Your task to perform on an android device: set the stopwatch Image 0: 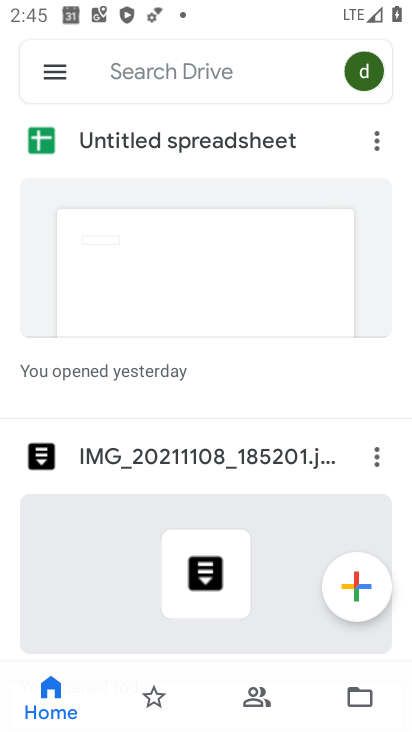
Step 0: press home button
Your task to perform on an android device: set the stopwatch Image 1: 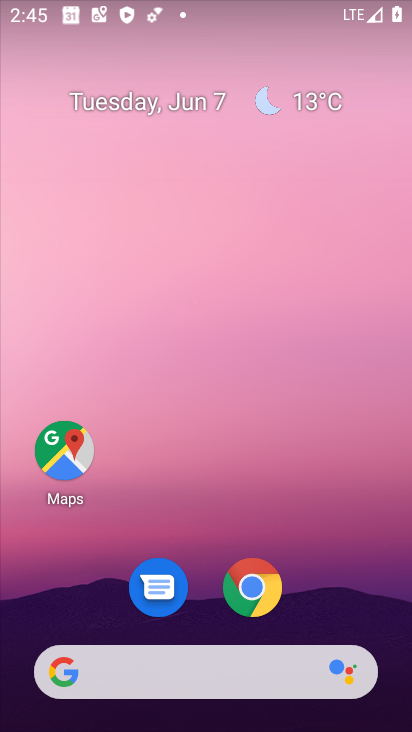
Step 1: drag from (254, 640) to (275, 20)
Your task to perform on an android device: set the stopwatch Image 2: 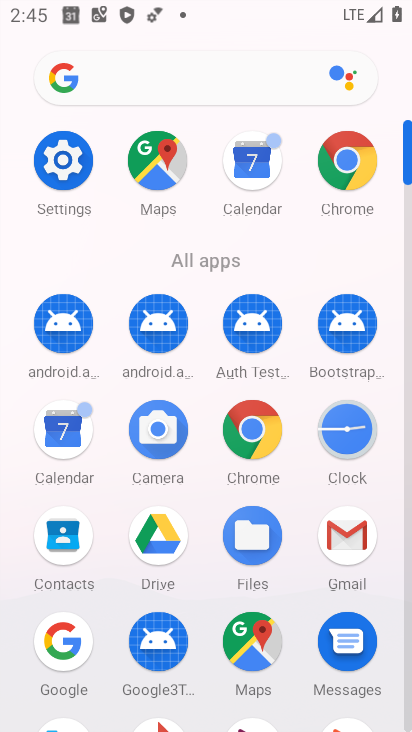
Step 2: click (350, 439)
Your task to perform on an android device: set the stopwatch Image 3: 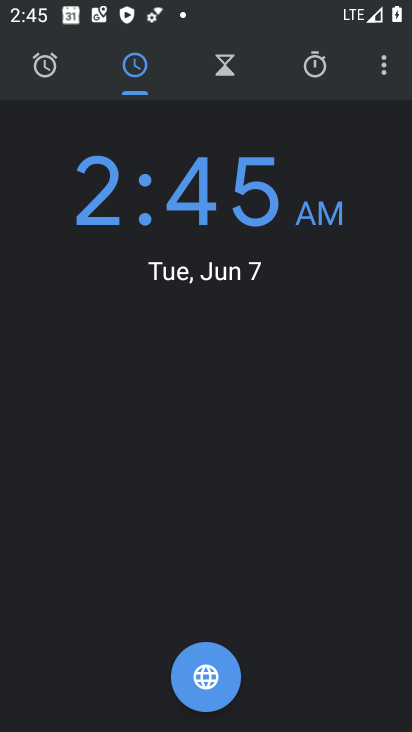
Step 3: click (316, 82)
Your task to perform on an android device: set the stopwatch Image 4: 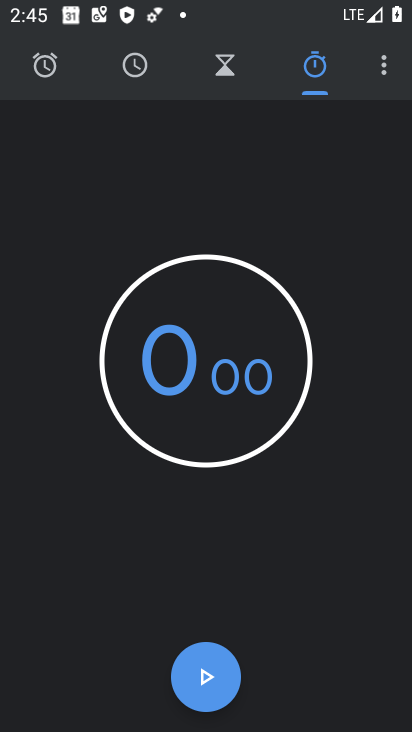
Step 4: click (211, 671)
Your task to perform on an android device: set the stopwatch Image 5: 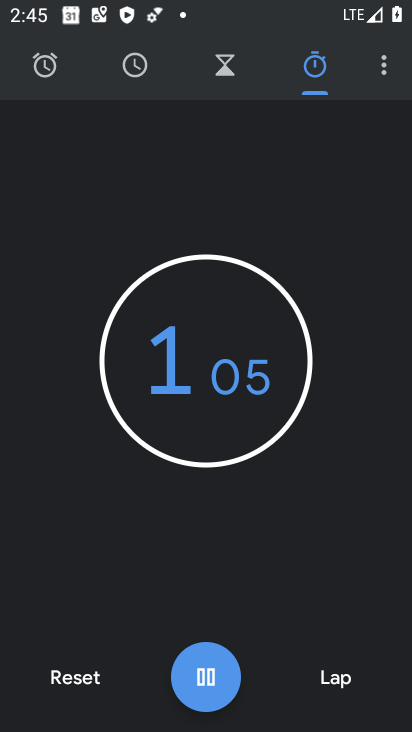
Step 5: click (212, 672)
Your task to perform on an android device: set the stopwatch Image 6: 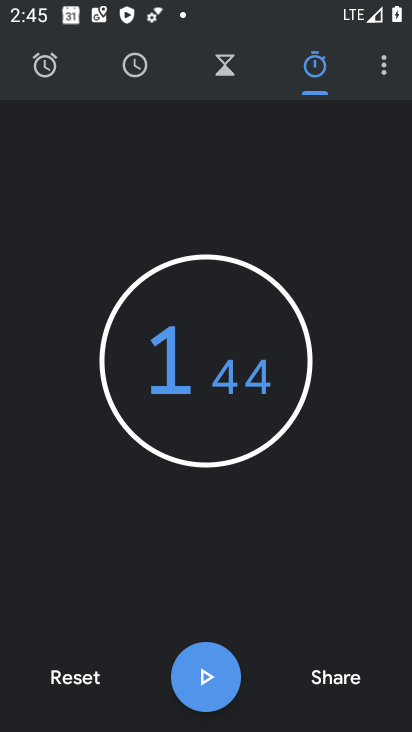
Step 6: task complete